Your task to perform on an android device: Open network settings Image 0: 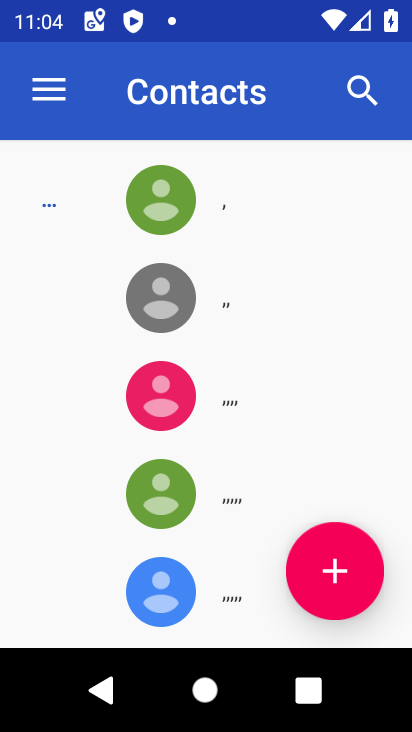
Step 0: press home button
Your task to perform on an android device: Open network settings Image 1: 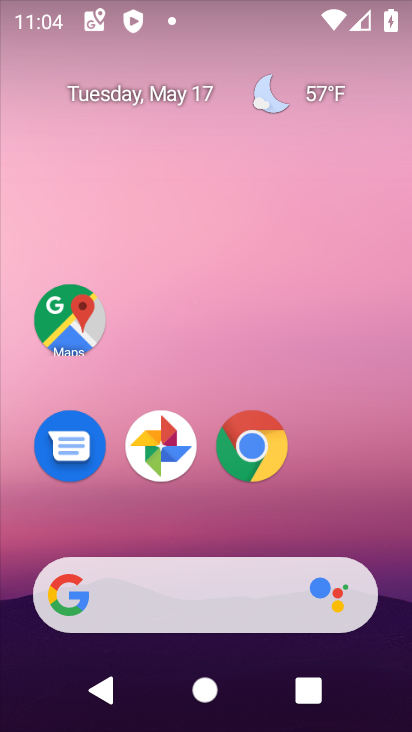
Step 1: drag from (224, 579) to (148, 0)
Your task to perform on an android device: Open network settings Image 2: 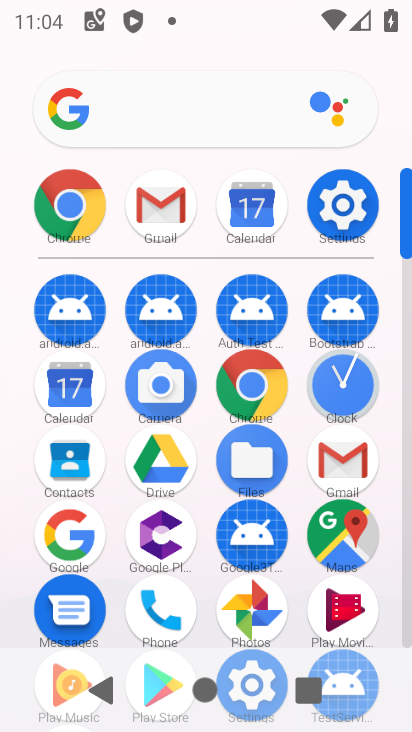
Step 2: click (343, 193)
Your task to perform on an android device: Open network settings Image 3: 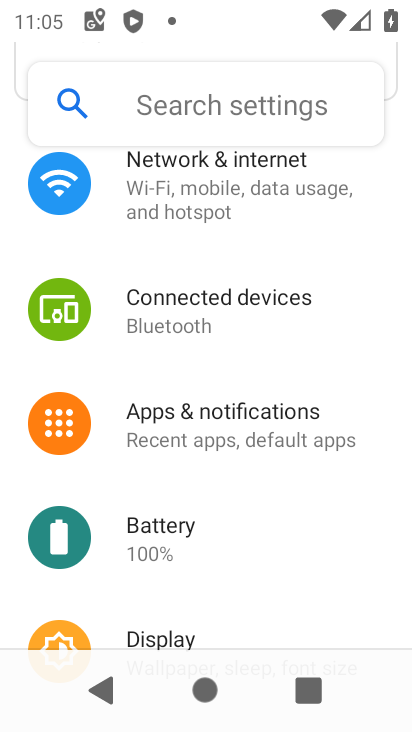
Step 3: click (192, 192)
Your task to perform on an android device: Open network settings Image 4: 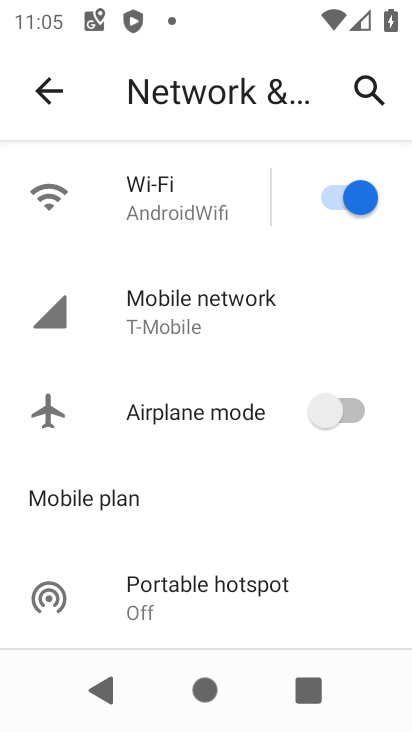
Step 4: task complete